Your task to perform on an android device: Open location settings Image 0: 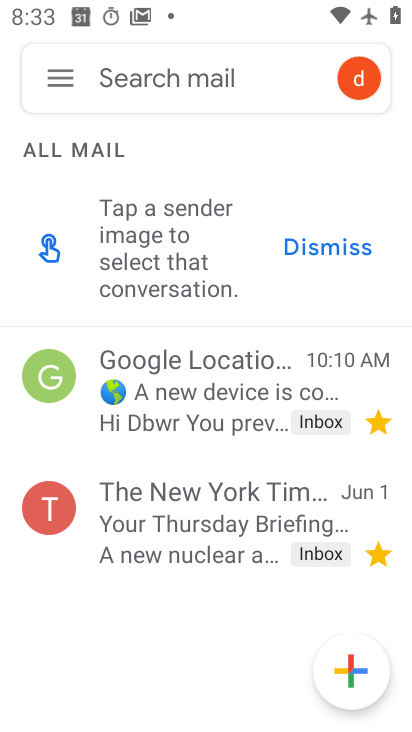
Step 0: press home button
Your task to perform on an android device: Open location settings Image 1: 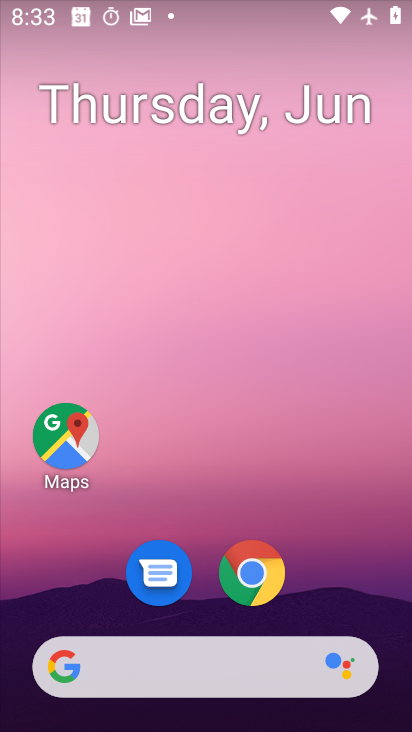
Step 1: drag from (219, 574) to (291, 197)
Your task to perform on an android device: Open location settings Image 2: 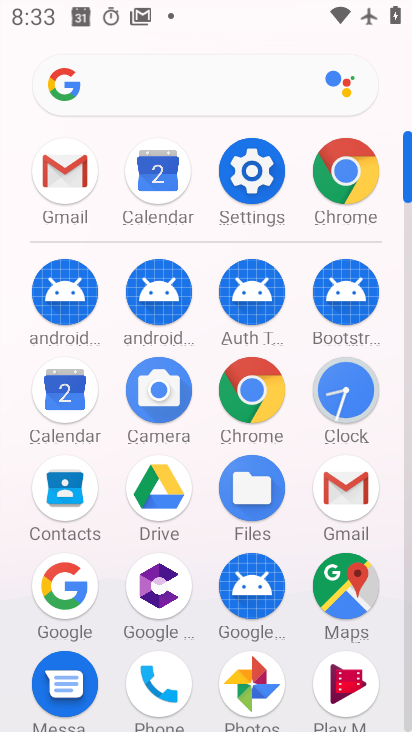
Step 2: click (243, 186)
Your task to perform on an android device: Open location settings Image 3: 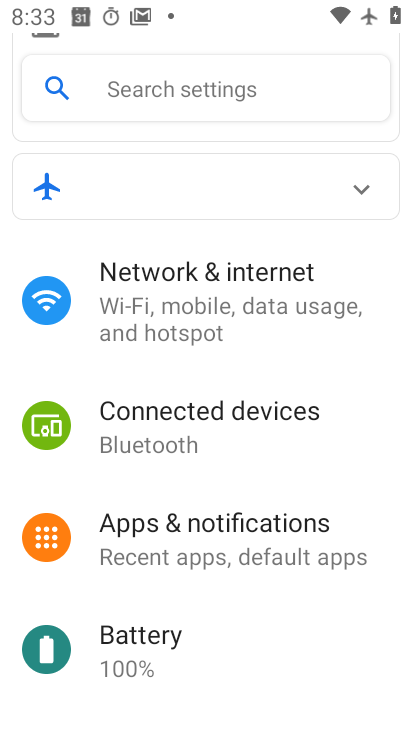
Step 3: drag from (171, 679) to (236, 333)
Your task to perform on an android device: Open location settings Image 4: 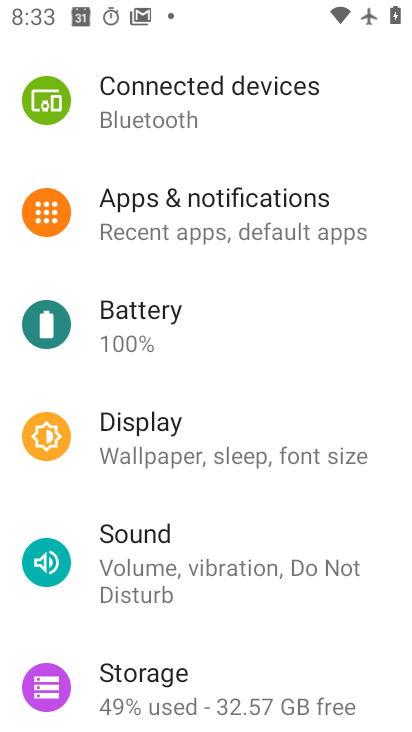
Step 4: drag from (179, 517) to (209, 343)
Your task to perform on an android device: Open location settings Image 5: 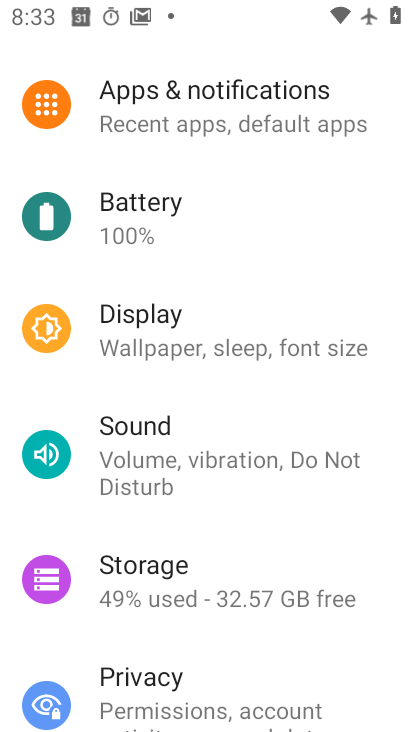
Step 5: drag from (187, 620) to (221, 409)
Your task to perform on an android device: Open location settings Image 6: 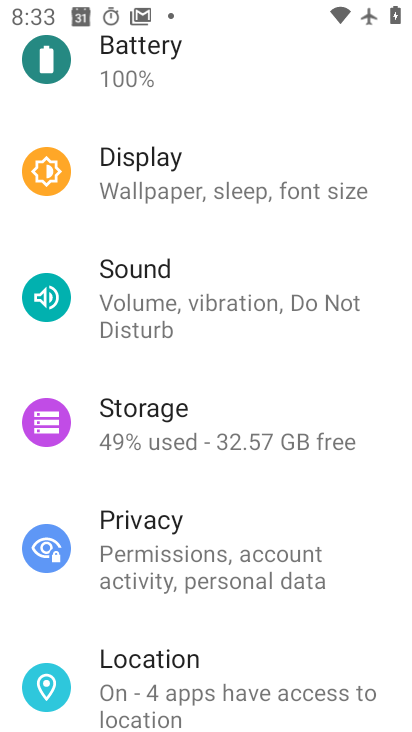
Step 6: click (167, 670)
Your task to perform on an android device: Open location settings Image 7: 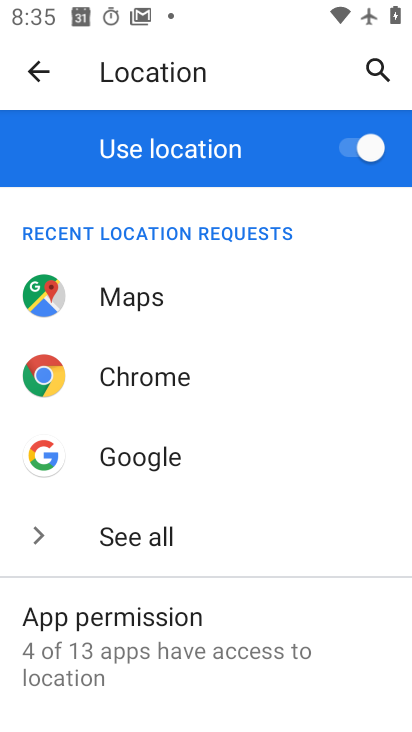
Step 7: task complete